Your task to perform on an android device: Show me productivity apps on the Play Store Image 0: 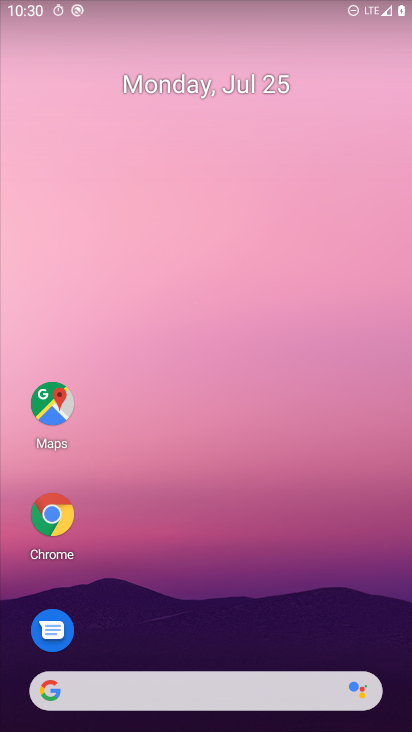
Step 0: drag from (153, 391) to (183, 300)
Your task to perform on an android device: Show me productivity apps on the Play Store Image 1: 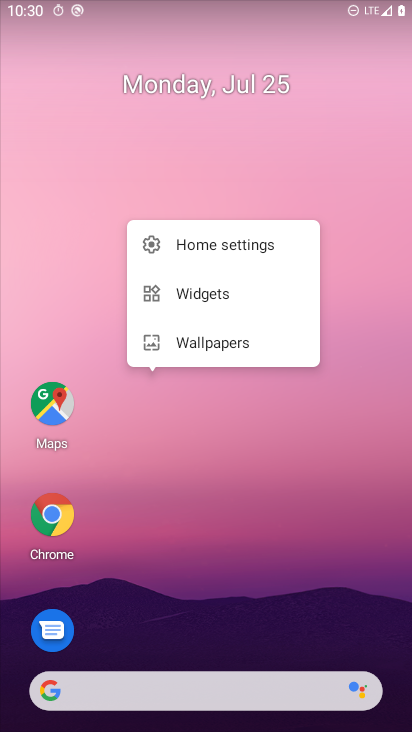
Step 1: drag from (56, 586) to (189, 139)
Your task to perform on an android device: Show me productivity apps on the Play Store Image 2: 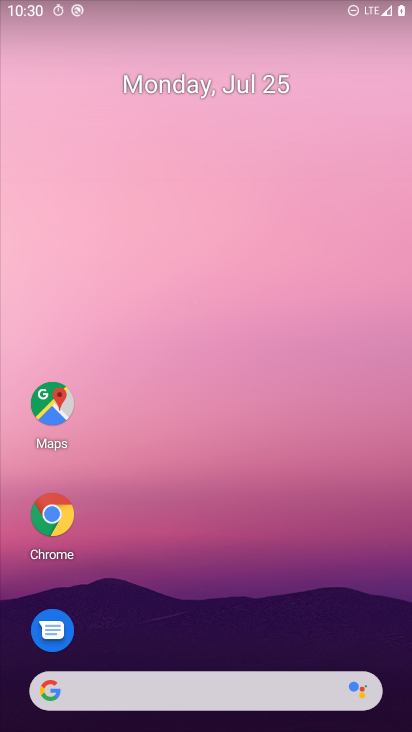
Step 2: drag from (135, 412) to (241, 111)
Your task to perform on an android device: Show me productivity apps on the Play Store Image 3: 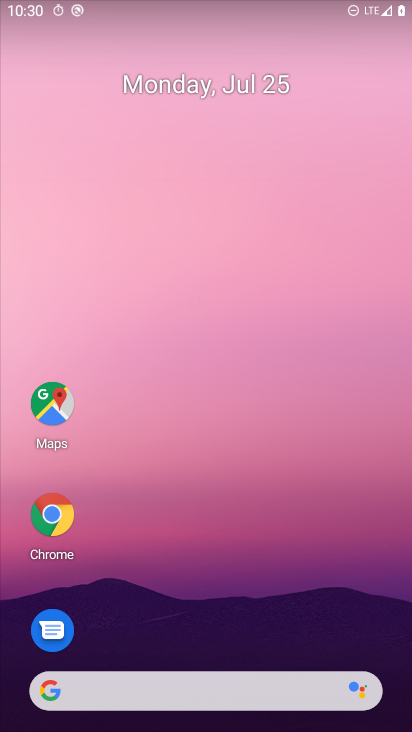
Step 3: drag from (32, 701) to (168, 197)
Your task to perform on an android device: Show me productivity apps on the Play Store Image 4: 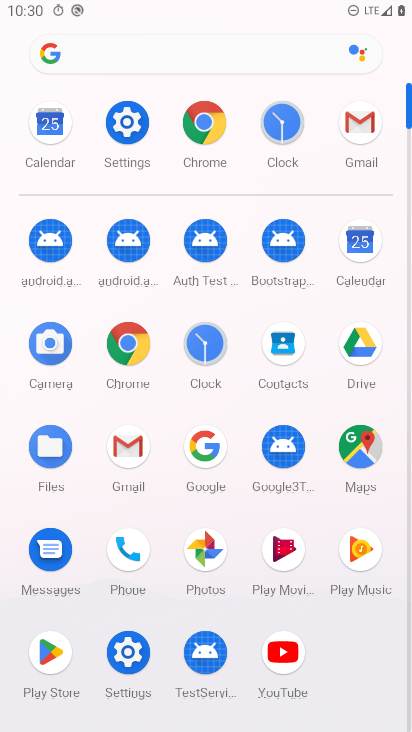
Step 4: click (52, 670)
Your task to perform on an android device: Show me productivity apps on the Play Store Image 5: 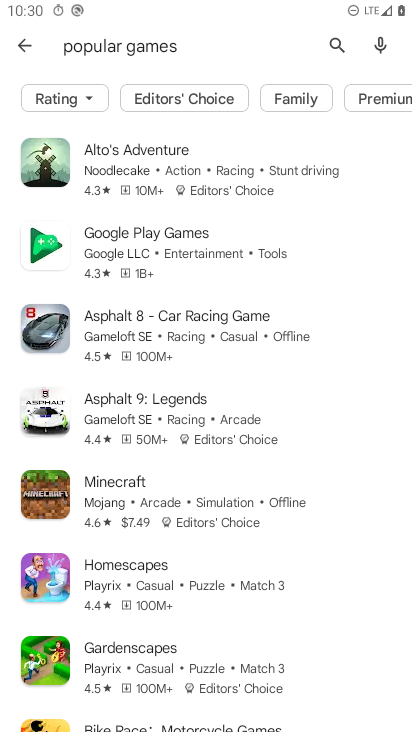
Step 5: click (28, 45)
Your task to perform on an android device: Show me productivity apps on the Play Store Image 6: 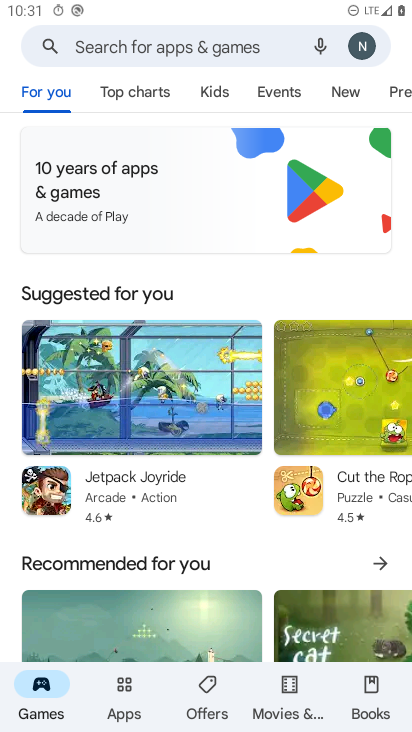
Step 6: click (127, 43)
Your task to perform on an android device: Show me productivity apps on the Play Store Image 7: 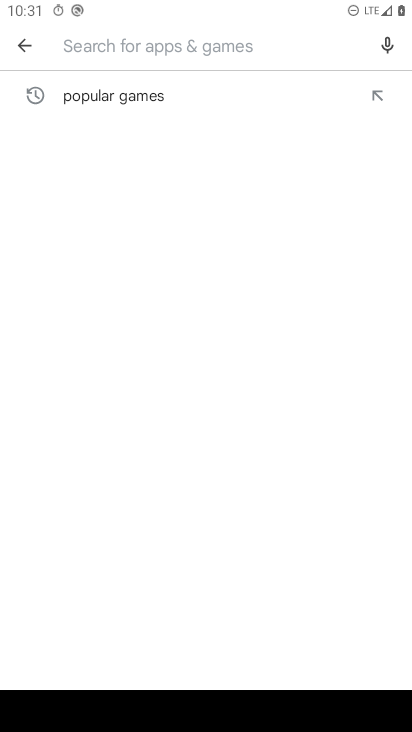
Step 7: type "productivity apps"
Your task to perform on an android device: Show me productivity apps on the Play Store Image 8: 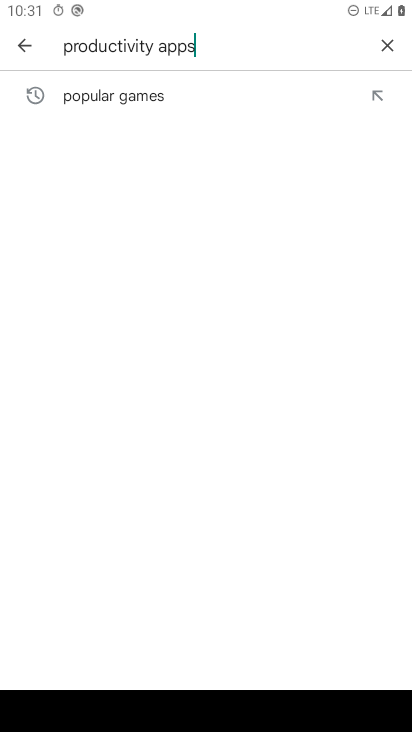
Step 8: type ""
Your task to perform on an android device: Show me productivity apps on the Play Store Image 9: 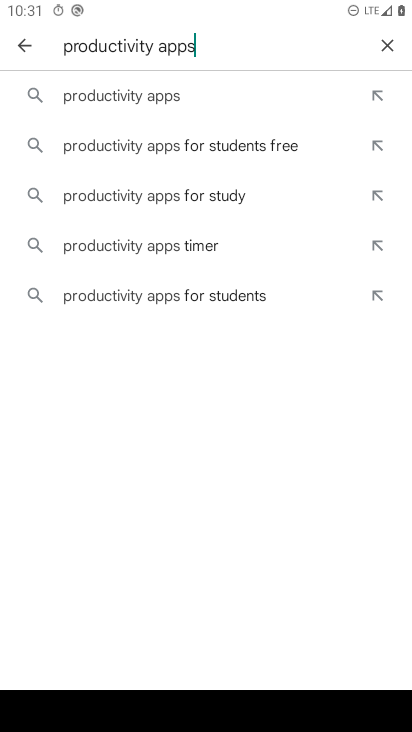
Step 9: click (181, 99)
Your task to perform on an android device: Show me productivity apps on the Play Store Image 10: 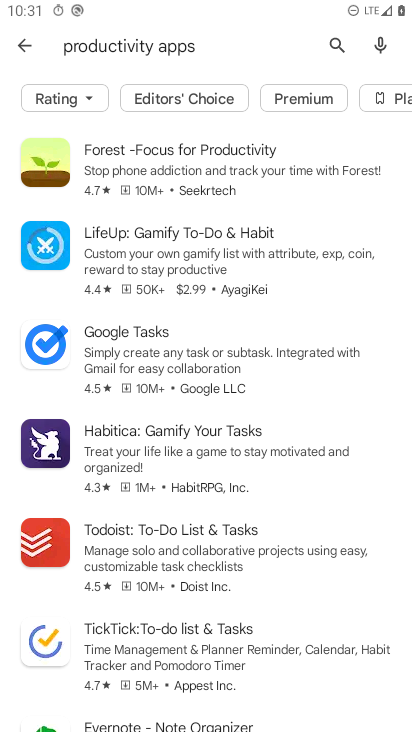
Step 10: task complete